Your task to perform on an android device: Show the shopping cart on target. Add "beats solo 3" to the cart on target, then select checkout. Image 0: 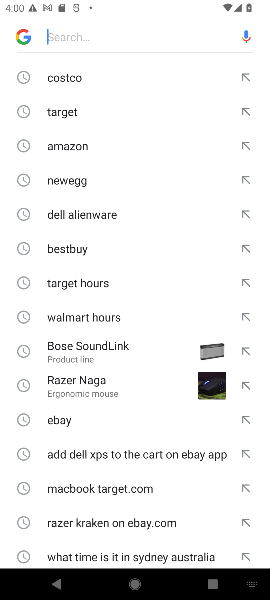
Step 0: press home button
Your task to perform on an android device: Show the shopping cart on target. Add "beats solo 3" to the cart on target, then select checkout. Image 1: 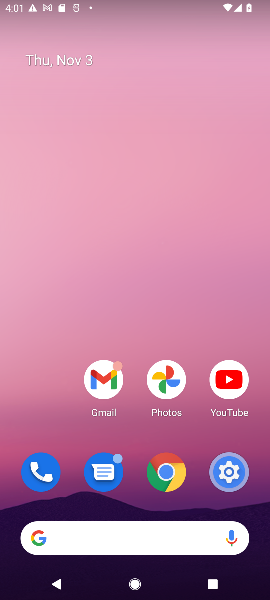
Step 1: click (175, 541)
Your task to perform on an android device: Show the shopping cart on target. Add "beats solo 3" to the cart on target, then select checkout. Image 2: 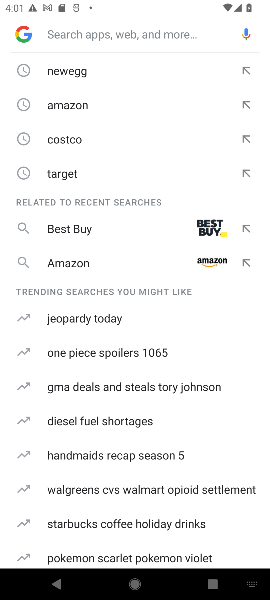
Step 2: click (93, 180)
Your task to perform on an android device: Show the shopping cart on target. Add "beats solo 3" to the cart on target, then select checkout. Image 3: 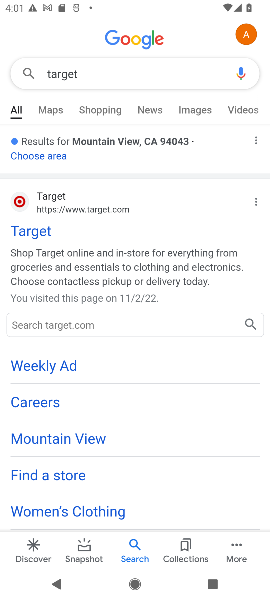
Step 3: click (52, 237)
Your task to perform on an android device: Show the shopping cart on target. Add "beats solo 3" to the cart on target, then select checkout. Image 4: 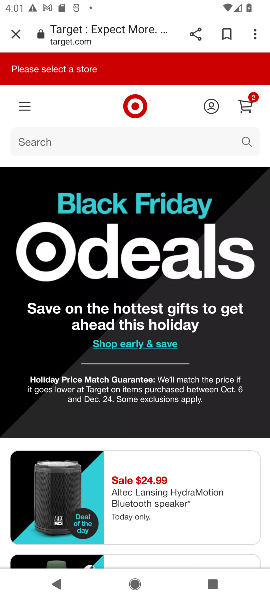
Step 4: click (215, 140)
Your task to perform on an android device: Show the shopping cart on target. Add "beats solo 3" to the cart on target, then select checkout. Image 5: 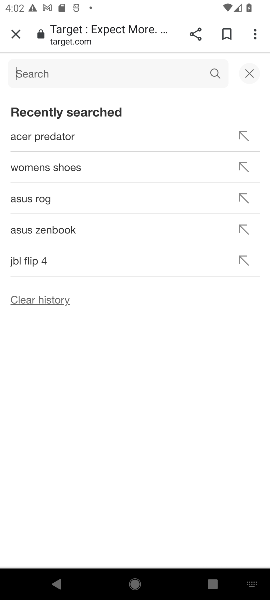
Step 5: type "beat solo 3"
Your task to perform on an android device: Show the shopping cart on target. Add "beats solo 3" to the cart on target, then select checkout. Image 6: 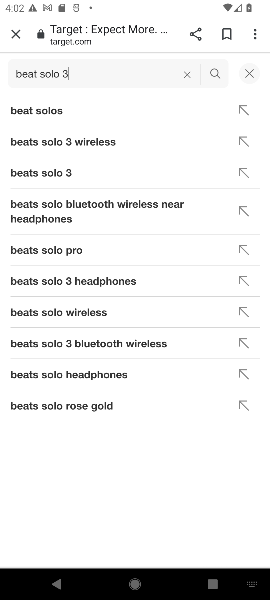
Step 6: click (168, 186)
Your task to perform on an android device: Show the shopping cart on target. Add "beats solo 3" to the cart on target, then select checkout. Image 7: 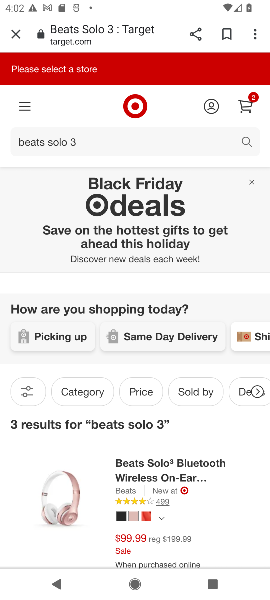
Step 7: click (145, 459)
Your task to perform on an android device: Show the shopping cart on target. Add "beats solo 3" to the cart on target, then select checkout. Image 8: 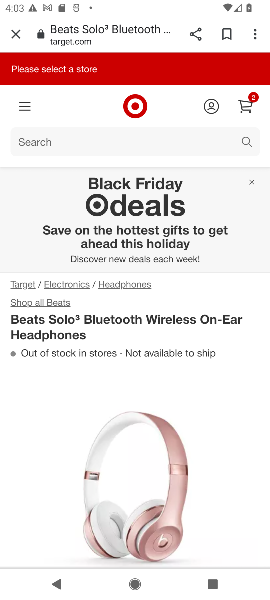
Step 8: task complete